Your task to perform on an android device: stop showing notifications on the lock screen Image 0: 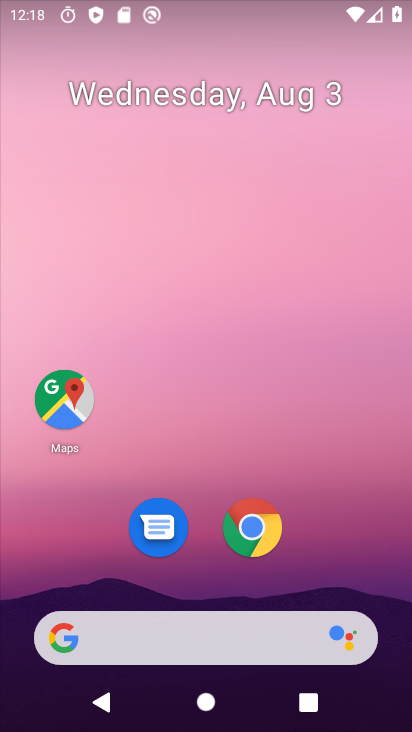
Step 0: drag from (195, 583) to (247, 91)
Your task to perform on an android device: stop showing notifications on the lock screen Image 1: 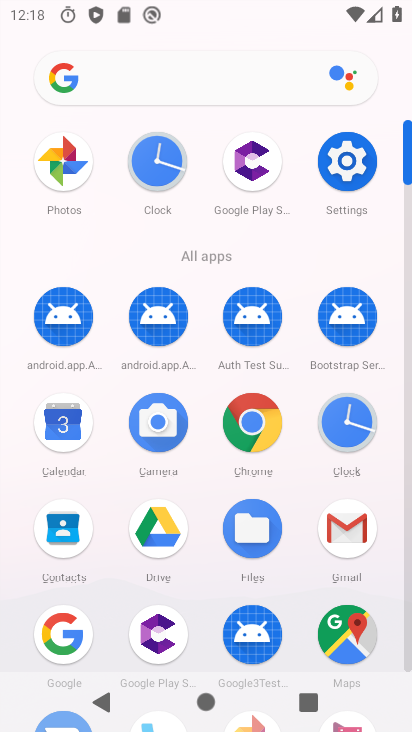
Step 1: click (351, 190)
Your task to perform on an android device: stop showing notifications on the lock screen Image 2: 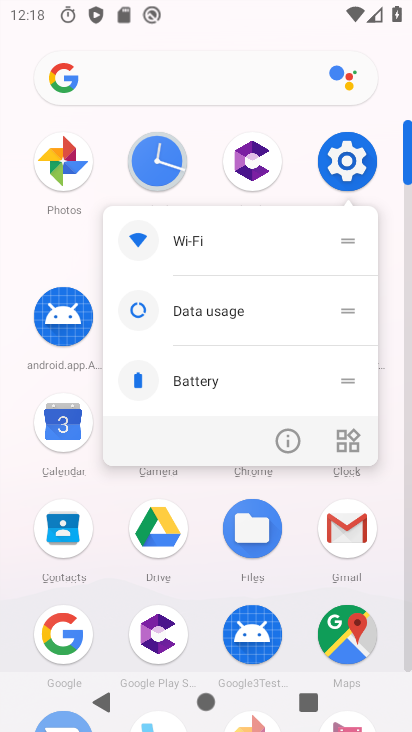
Step 2: drag from (198, 590) to (196, 502)
Your task to perform on an android device: stop showing notifications on the lock screen Image 3: 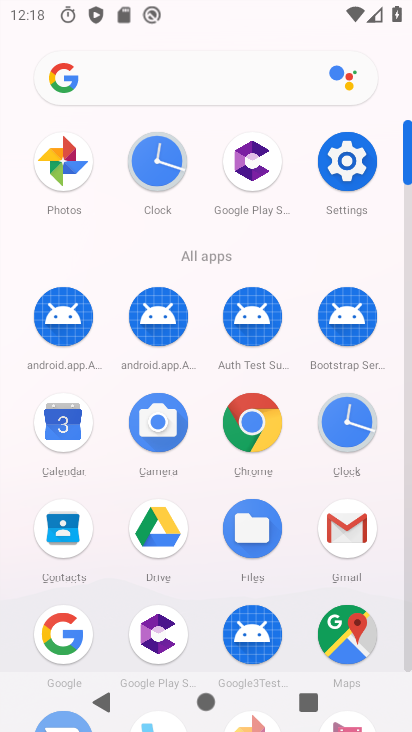
Step 3: click (354, 174)
Your task to perform on an android device: stop showing notifications on the lock screen Image 4: 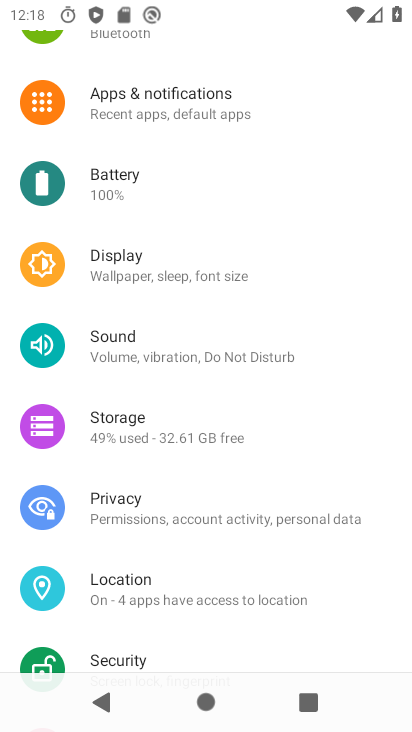
Step 4: click (195, 104)
Your task to perform on an android device: stop showing notifications on the lock screen Image 5: 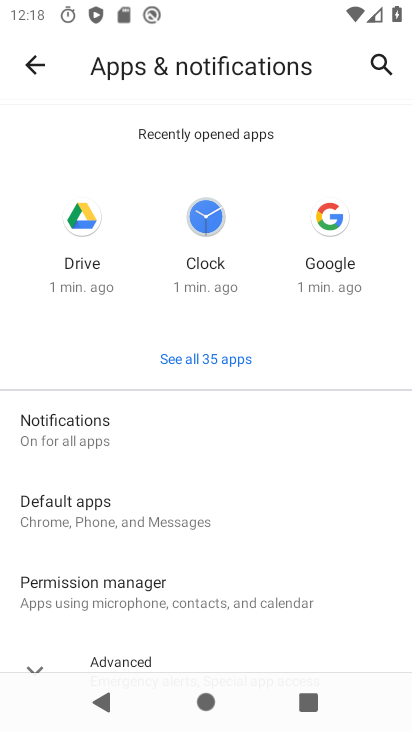
Step 5: click (69, 429)
Your task to perform on an android device: stop showing notifications on the lock screen Image 6: 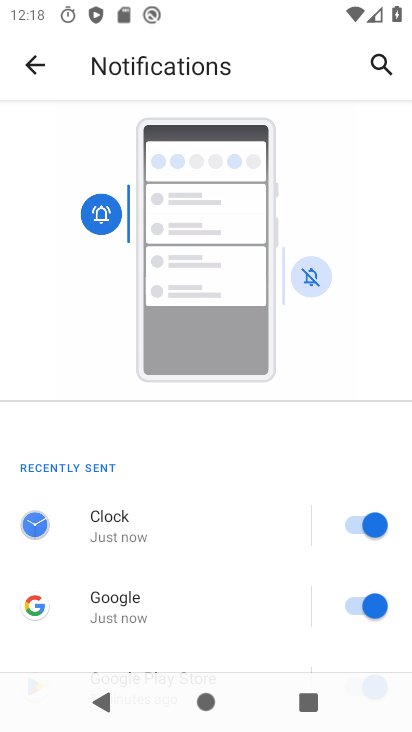
Step 6: drag from (153, 434) to (190, 306)
Your task to perform on an android device: stop showing notifications on the lock screen Image 7: 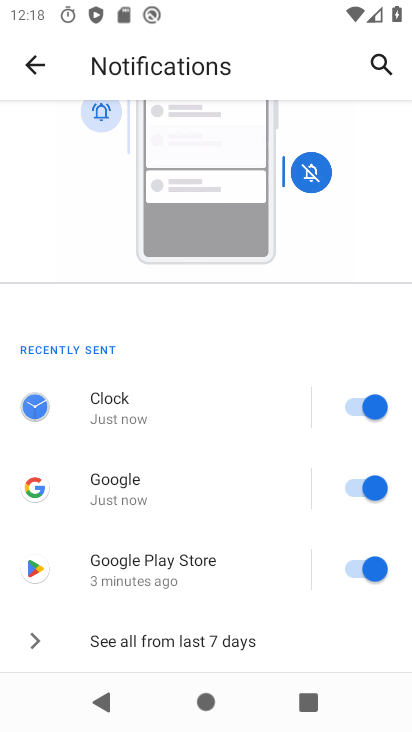
Step 7: drag from (175, 581) to (187, 438)
Your task to perform on an android device: stop showing notifications on the lock screen Image 8: 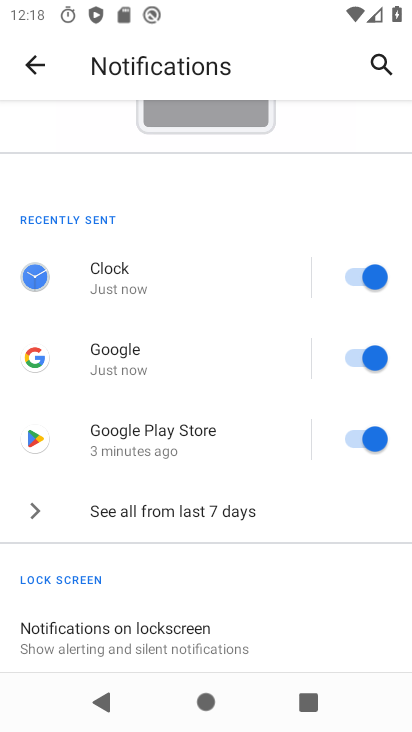
Step 8: drag from (167, 617) to (190, 457)
Your task to perform on an android device: stop showing notifications on the lock screen Image 9: 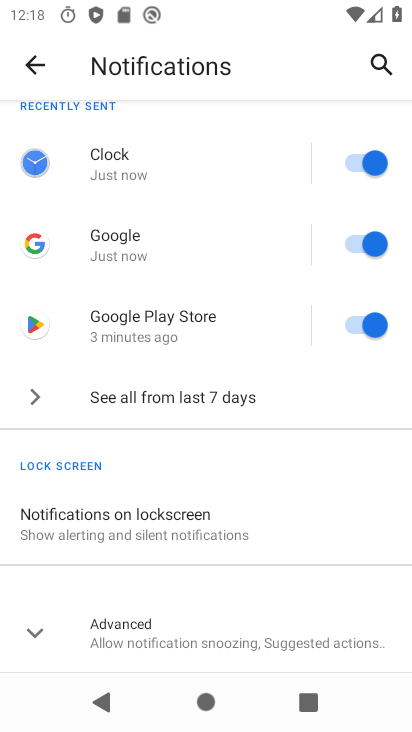
Step 9: click (117, 562)
Your task to perform on an android device: stop showing notifications on the lock screen Image 10: 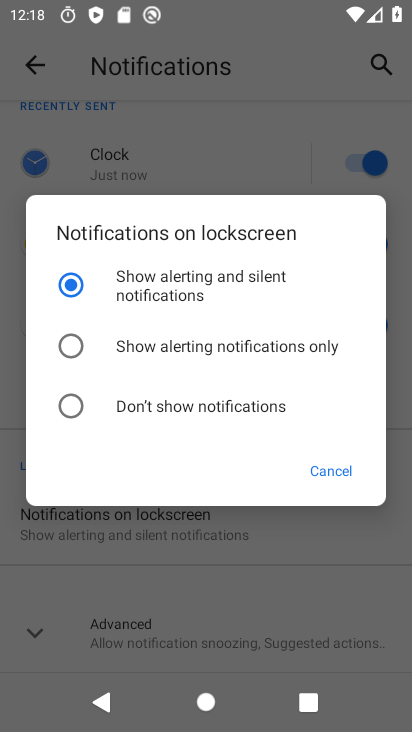
Step 10: click (108, 403)
Your task to perform on an android device: stop showing notifications on the lock screen Image 11: 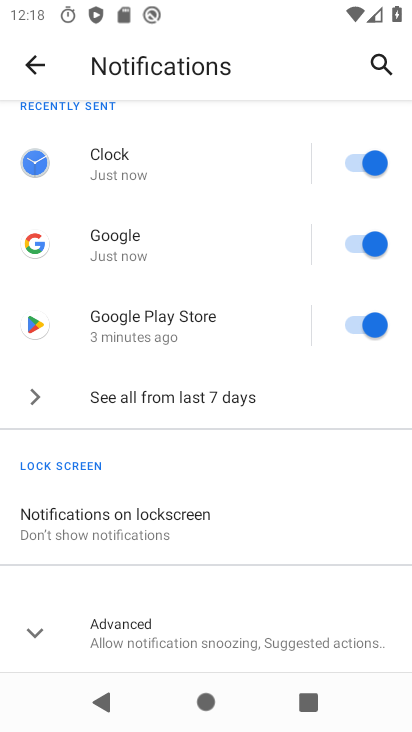
Step 11: task complete